Your task to perform on an android device: toggle javascript in the chrome app Image 0: 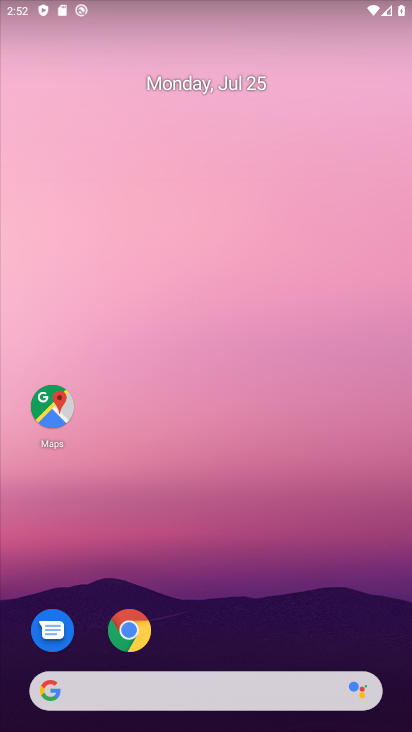
Step 0: drag from (178, 620) to (256, 50)
Your task to perform on an android device: toggle javascript in the chrome app Image 1: 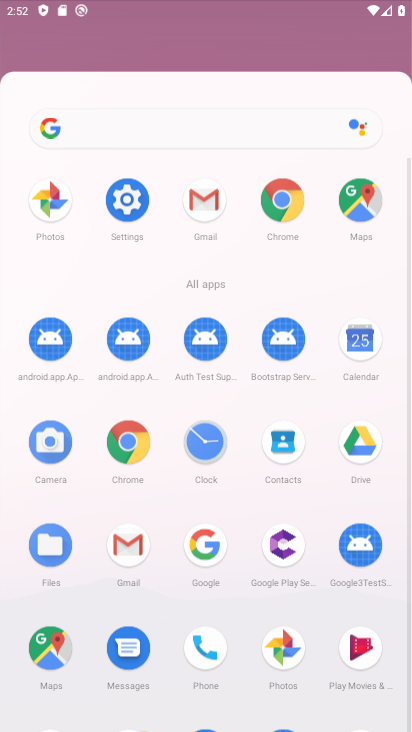
Step 1: drag from (233, 332) to (289, 3)
Your task to perform on an android device: toggle javascript in the chrome app Image 2: 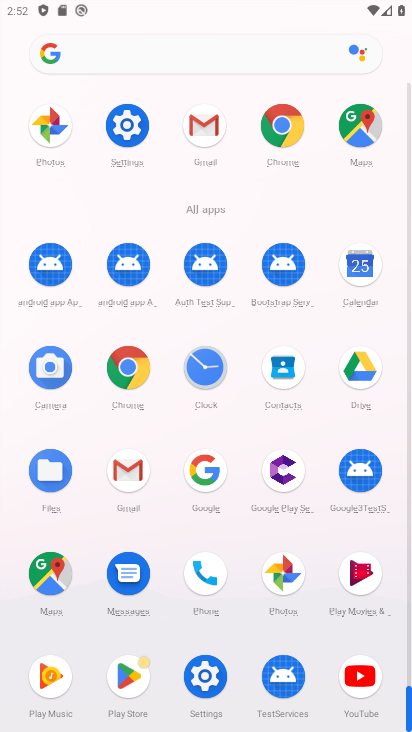
Step 2: click (124, 365)
Your task to perform on an android device: toggle javascript in the chrome app Image 3: 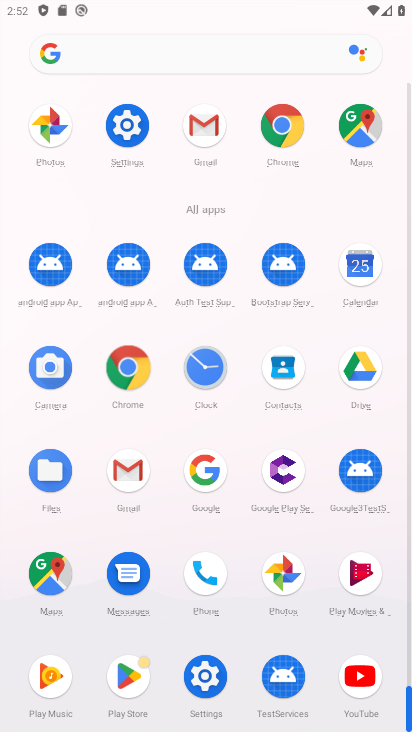
Step 3: click (133, 363)
Your task to perform on an android device: toggle javascript in the chrome app Image 4: 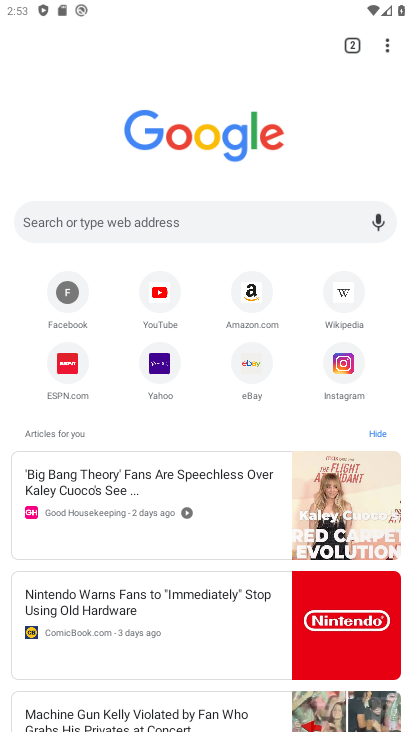
Step 4: drag from (389, 42) to (208, 382)
Your task to perform on an android device: toggle javascript in the chrome app Image 5: 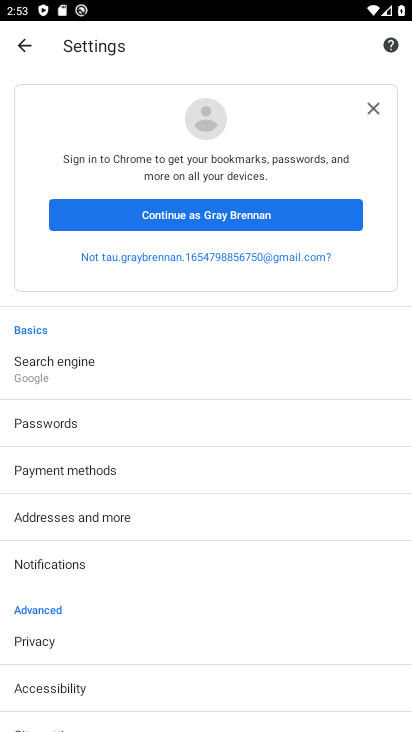
Step 5: drag from (105, 666) to (105, 345)
Your task to perform on an android device: toggle javascript in the chrome app Image 6: 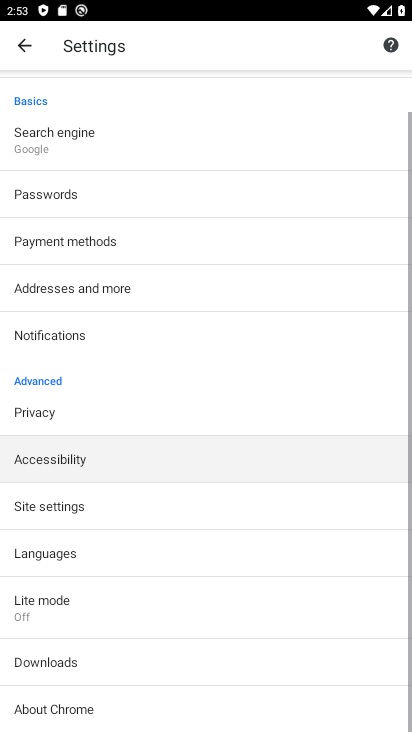
Step 6: drag from (136, 496) to (114, 327)
Your task to perform on an android device: toggle javascript in the chrome app Image 7: 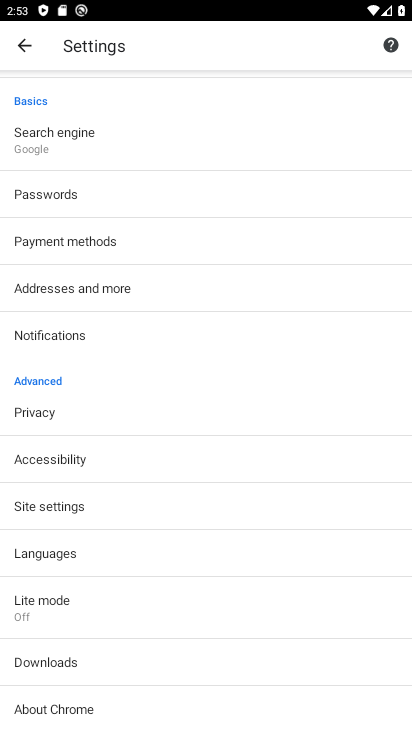
Step 7: click (169, 319)
Your task to perform on an android device: toggle javascript in the chrome app Image 8: 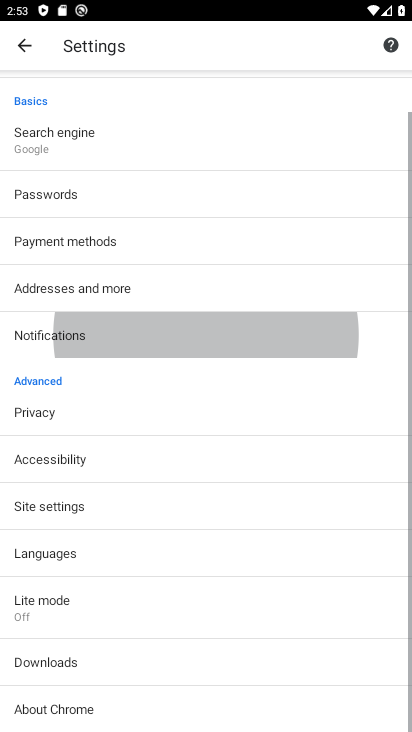
Step 8: click (53, 498)
Your task to perform on an android device: toggle javascript in the chrome app Image 9: 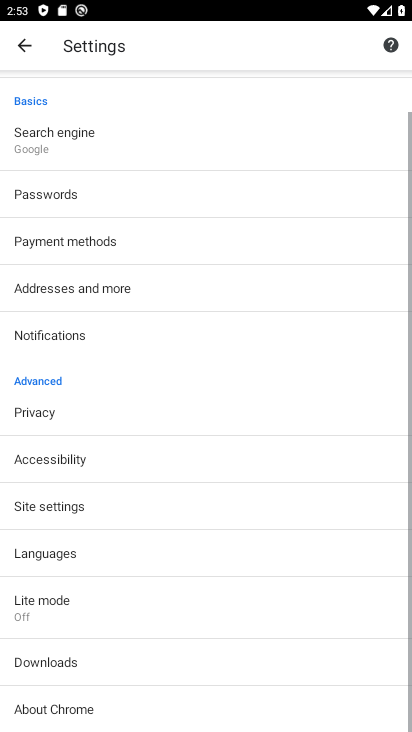
Step 9: click (74, 508)
Your task to perform on an android device: toggle javascript in the chrome app Image 10: 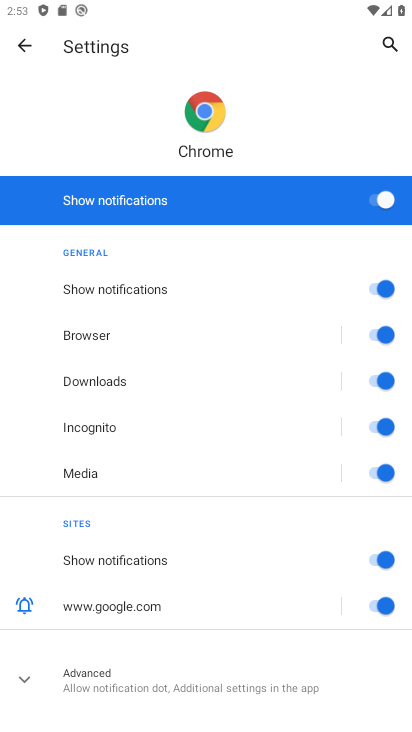
Step 10: click (21, 57)
Your task to perform on an android device: toggle javascript in the chrome app Image 11: 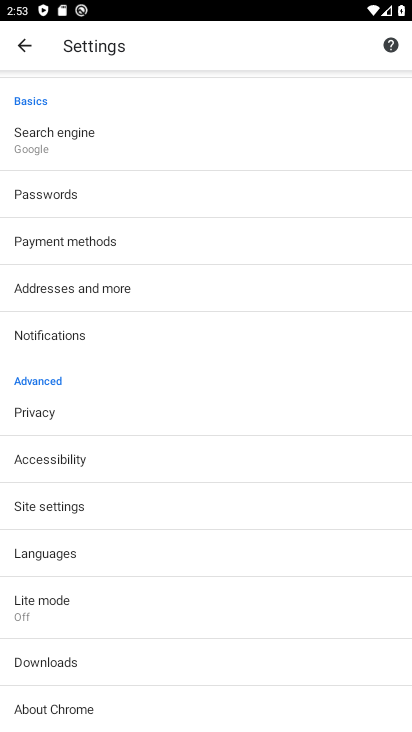
Step 11: click (39, 500)
Your task to perform on an android device: toggle javascript in the chrome app Image 12: 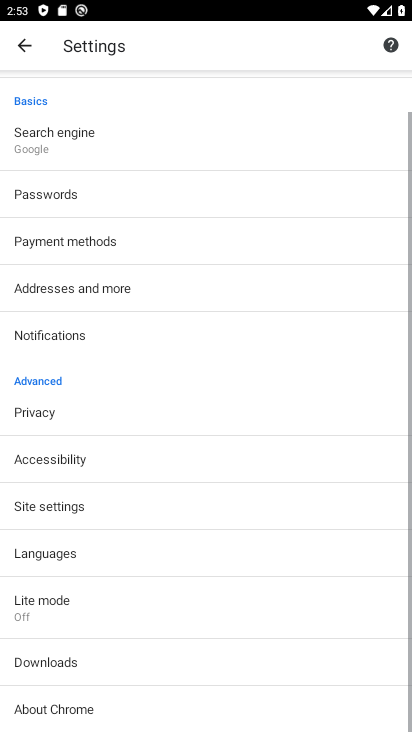
Step 12: click (43, 501)
Your task to perform on an android device: toggle javascript in the chrome app Image 13: 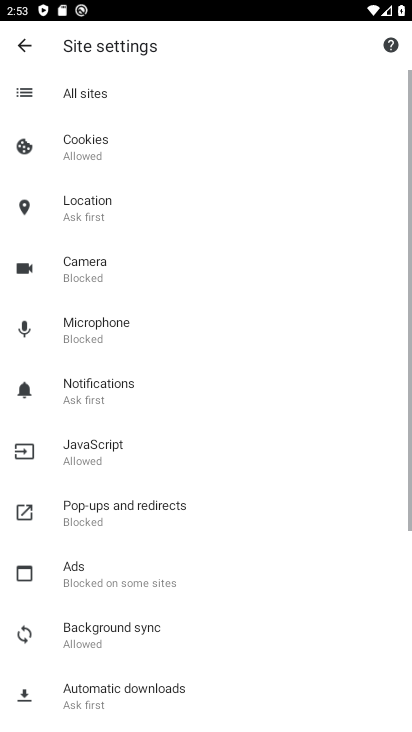
Step 13: click (48, 505)
Your task to perform on an android device: toggle javascript in the chrome app Image 14: 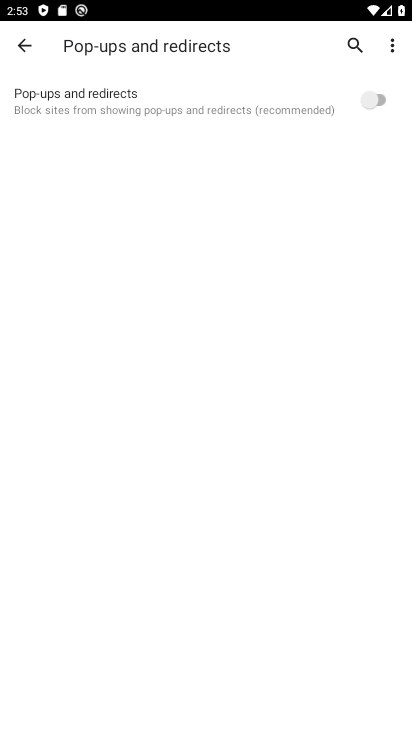
Step 14: click (15, 43)
Your task to perform on an android device: toggle javascript in the chrome app Image 15: 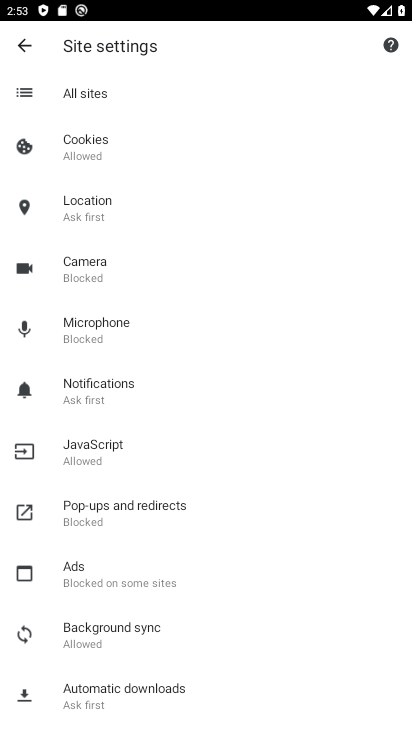
Step 15: click (88, 448)
Your task to perform on an android device: toggle javascript in the chrome app Image 16: 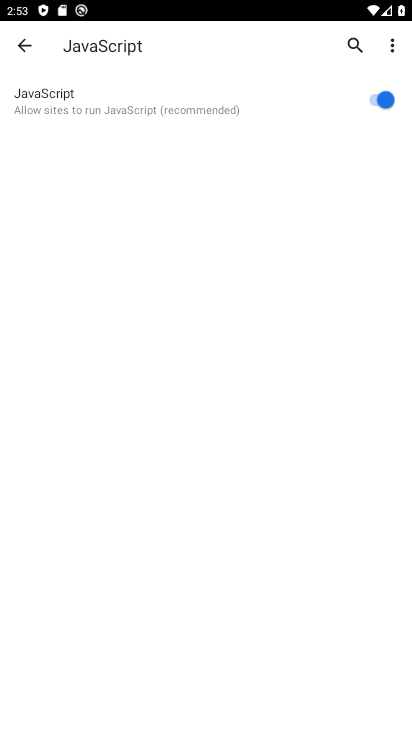
Step 16: click (385, 106)
Your task to perform on an android device: toggle javascript in the chrome app Image 17: 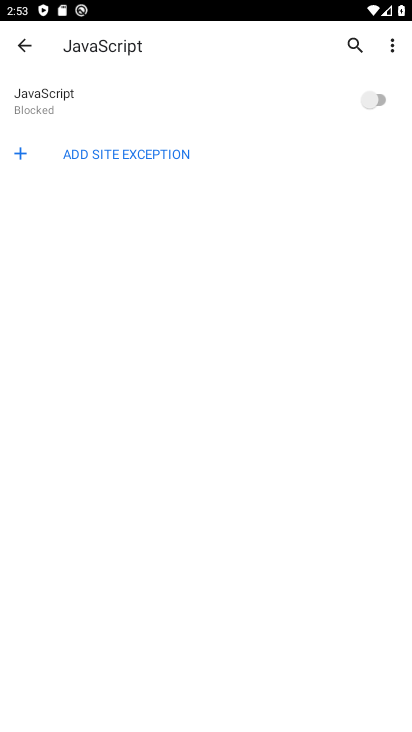
Step 17: task complete